Your task to perform on an android device: What's the weather going to be tomorrow? Image 0: 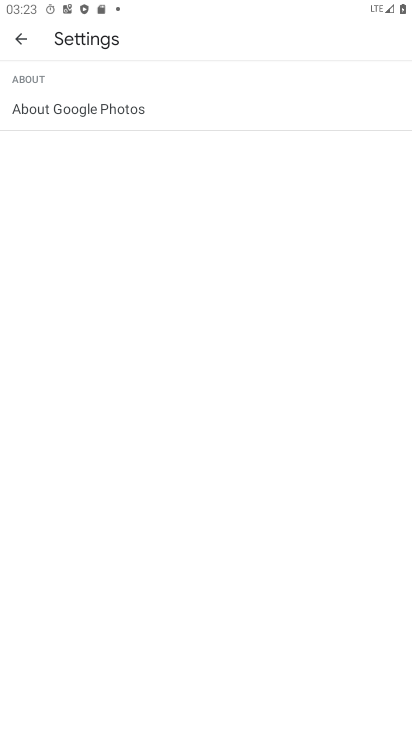
Step 0: press home button
Your task to perform on an android device: What's the weather going to be tomorrow? Image 1: 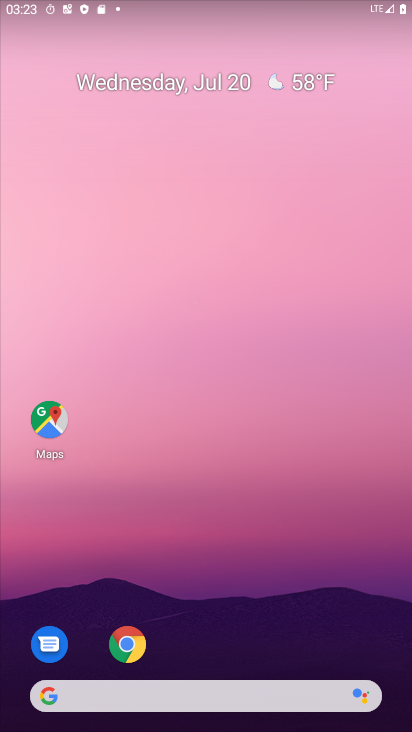
Step 1: click (114, 697)
Your task to perform on an android device: What's the weather going to be tomorrow? Image 2: 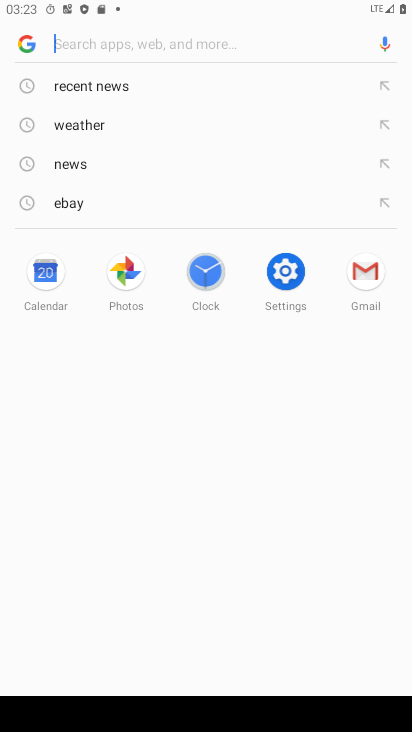
Step 2: click (401, 474)
Your task to perform on an android device: What's the weather going to be tomorrow? Image 3: 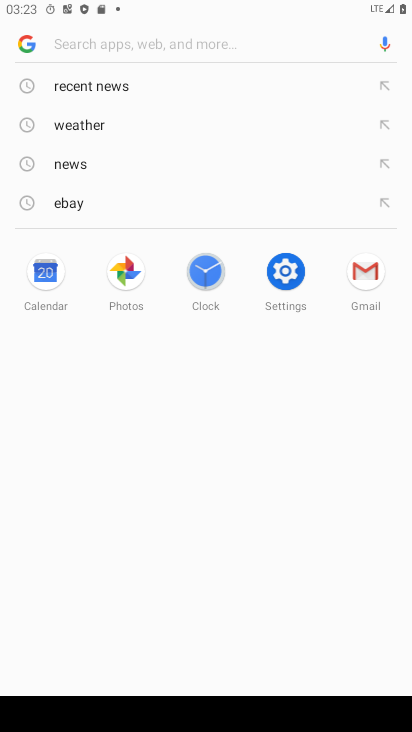
Step 3: type "What's the weather going to be tomorrow?"
Your task to perform on an android device: What's the weather going to be tomorrow? Image 4: 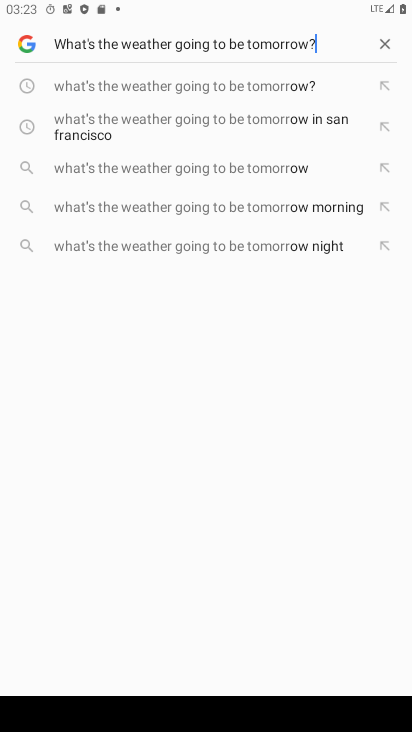
Step 4: type ""
Your task to perform on an android device: What's the weather going to be tomorrow? Image 5: 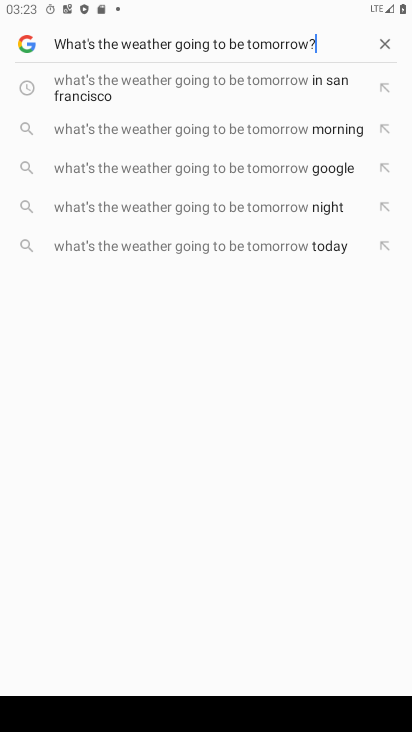
Step 5: type ""
Your task to perform on an android device: What's the weather going to be tomorrow? Image 6: 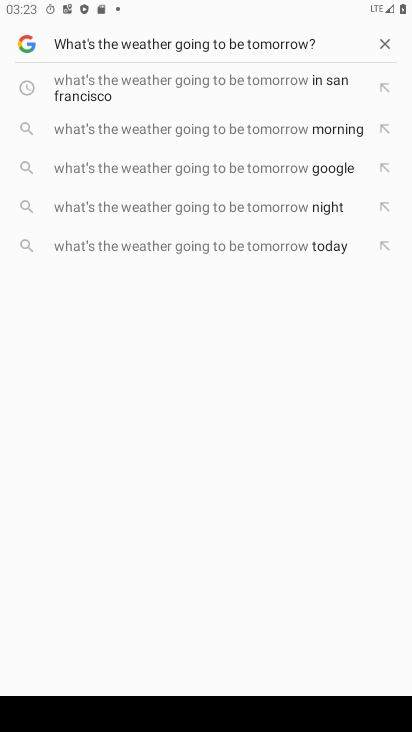
Step 6: type ""
Your task to perform on an android device: What's the weather going to be tomorrow? Image 7: 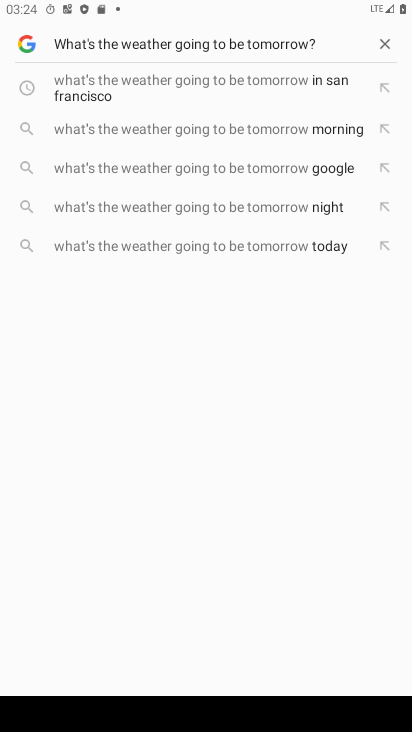
Step 7: task complete